Your task to perform on an android device: Open Google Chrome Image 0: 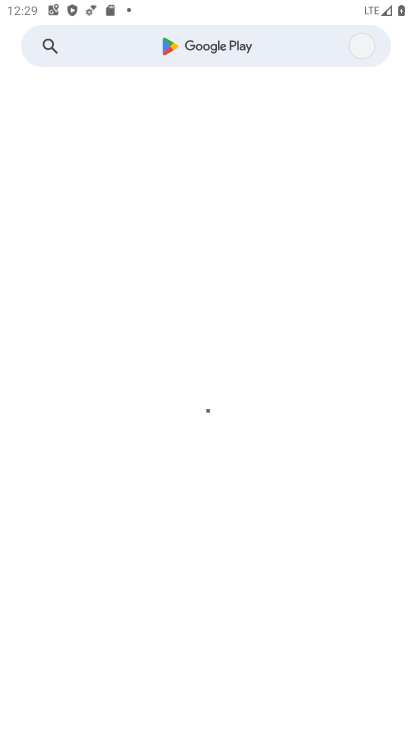
Step 0: press home button
Your task to perform on an android device: Open Google Chrome Image 1: 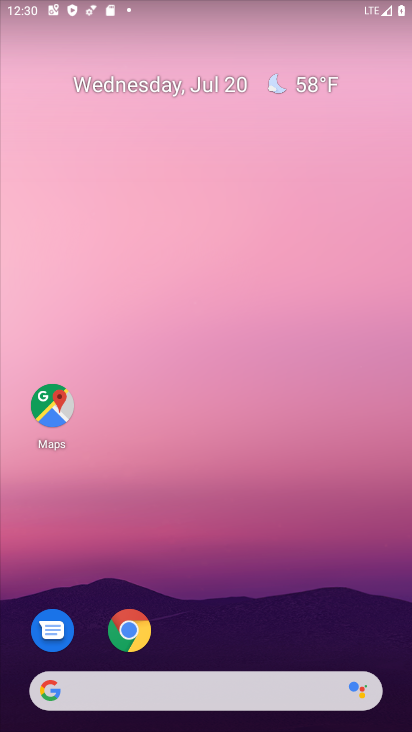
Step 1: drag from (247, 700) to (236, 189)
Your task to perform on an android device: Open Google Chrome Image 2: 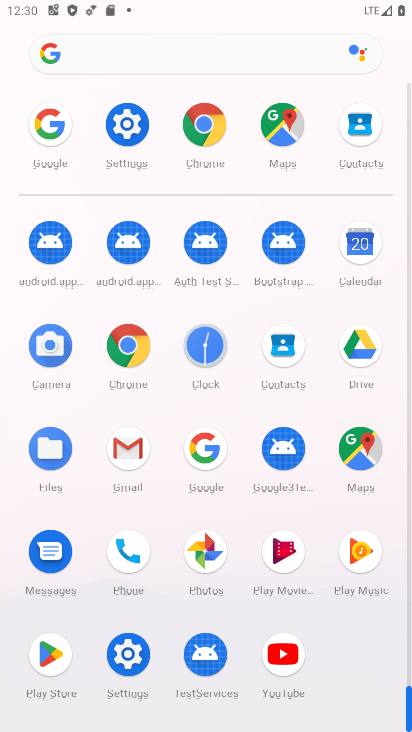
Step 2: click (119, 375)
Your task to perform on an android device: Open Google Chrome Image 3: 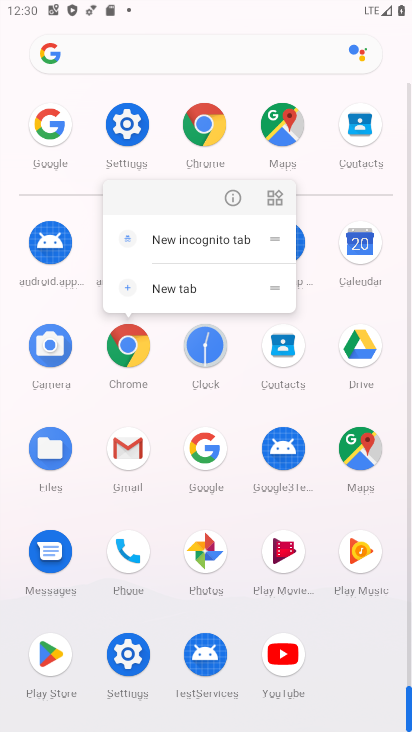
Step 3: click (119, 375)
Your task to perform on an android device: Open Google Chrome Image 4: 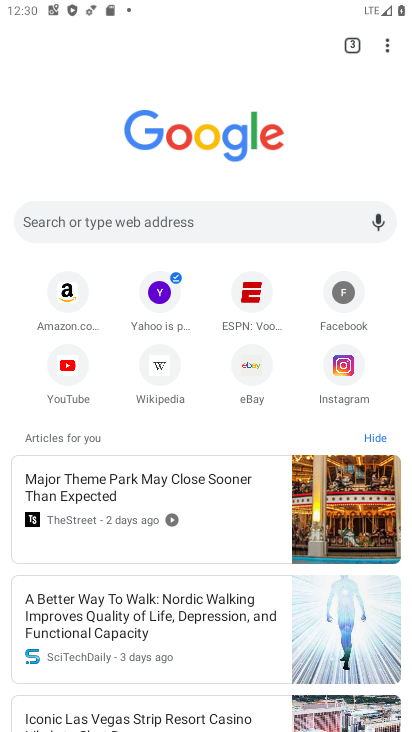
Step 4: task complete